Your task to perform on an android device: Go to wifi settings Image 0: 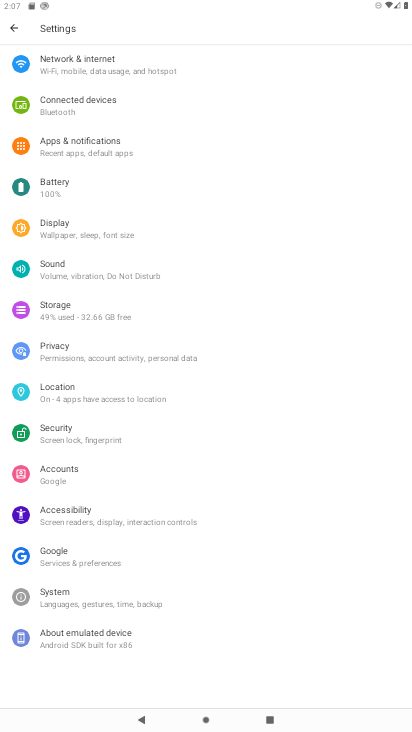
Step 0: drag from (157, 136) to (144, 621)
Your task to perform on an android device: Go to wifi settings Image 1: 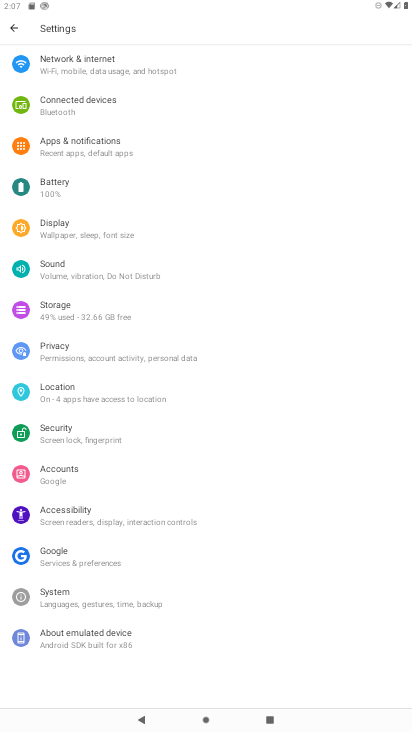
Step 1: click (68, 67)
Your task to perform on an android device: Go to wifi settings Image 2: 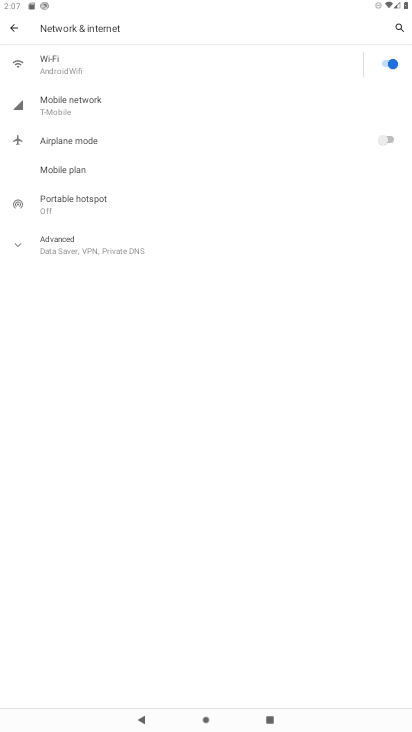
Step 2: click (99, 75)
Your task to perform on an android device: Go to wifi settings Image 3: 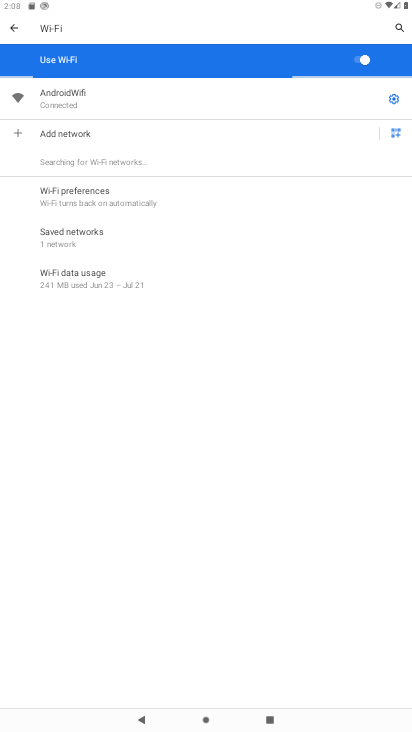
Step 3: task complete